Your task to perform on an android device: Search for the best rated 3d printer on Amazon. Image 0: 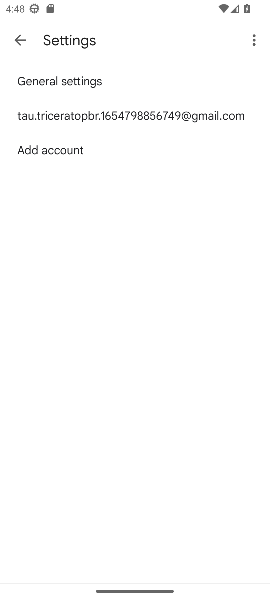
Step 0: press home button
Your task to perform on an android device: Search for the best rated 3d printer on Amazon. Image 1: 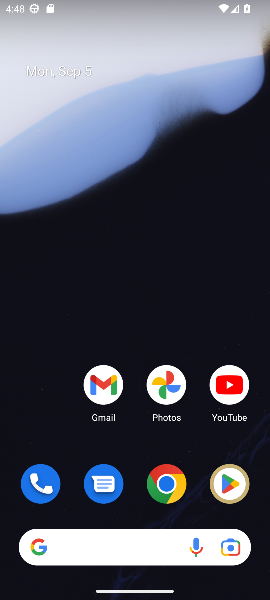
Step 1: click (172, 488)
Your task to perform on an android device: Search for the best rated 3d printer on Amazon. Image 2: 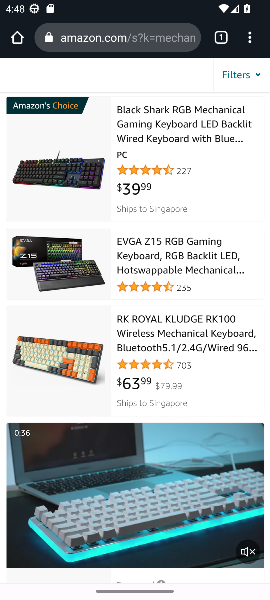
Step 2: drag from (167, 193) to (118, 596)
Your task to perform on an android device: Search for the best rated 3d printer on Amazon. Image 3: 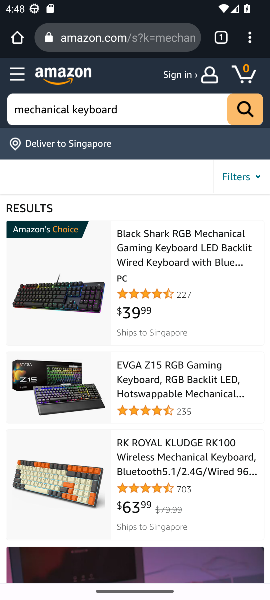
Step 3: drag from (173, 229) to (118, 506)
Your task to perform on an android device: Search for the best rated 3d printer on Amazon. Image 4: 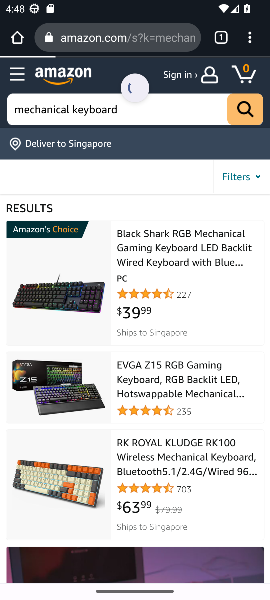
Step 4: click (172, 107)
Your task to perform on an android device: Search for the best rated 3d printer on Amazon. Image 5: 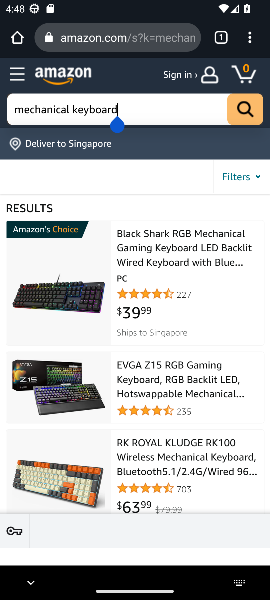
Step 5: click (172, 108)
Your task to perform on an android device: Search for the best rated 3d printer on Amazon. Image 6: 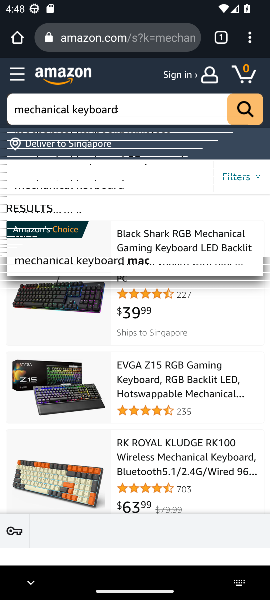
Step 6: click (218, 105)
Your task to perform on an android device: Search for the best rated 3d printer on Amazon. Image 7: 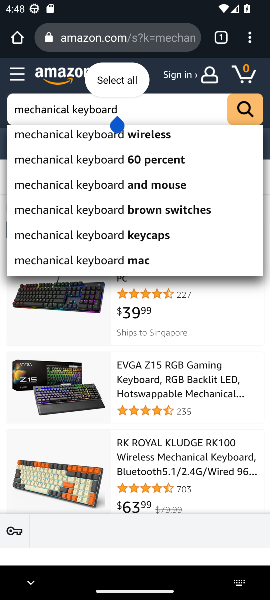
Step 7: click (176, 111)
Your task to perform on an android device: Search for the best rated 3d printer on Amazon. Image 8: 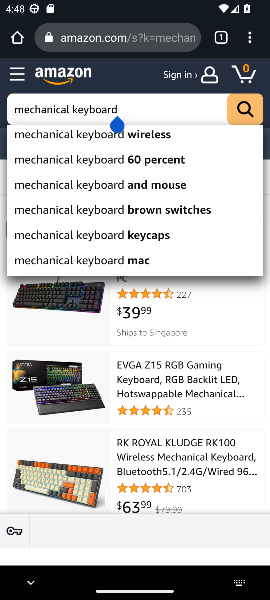
Step 8: click (197, 100)
Your task to perform on an android device: Search for the best rated 3d printer on Amazon. Image 9: 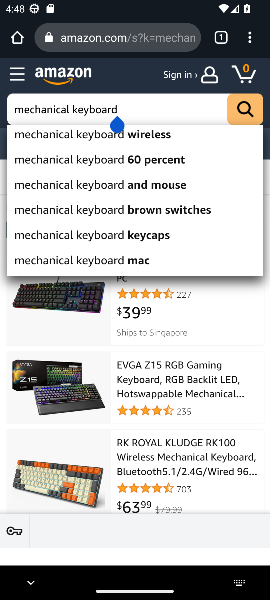
Step 9: click (222, 114)
Your task to perform on an android device: Search for the best rated 3d printer on Amazon. Image 10: 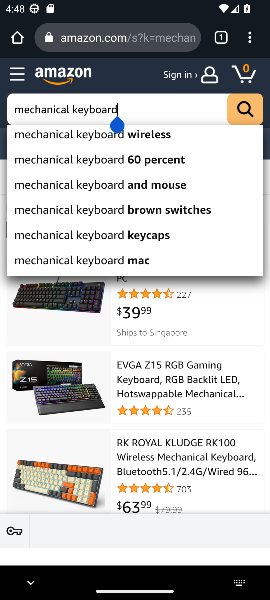
Step 10: click (191, 109)
Your task to perform on an android device: Search for the best rated 3d printer on Amazon. Image 11: 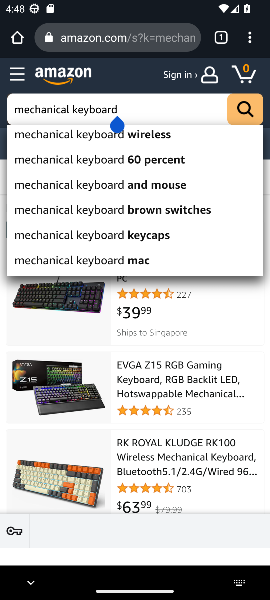
Step 11: click (89, 119)
Your task to perform on an android device: Search for the best rated 3d printer on Amazon. Image 12: 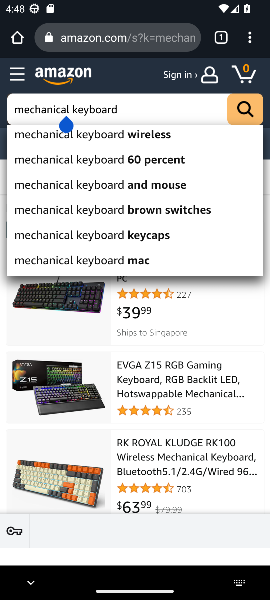
Step 12: click (141, 106)
Your task to perform on an android device: Search for the best rated 3d printer on Amazon. Image 13: 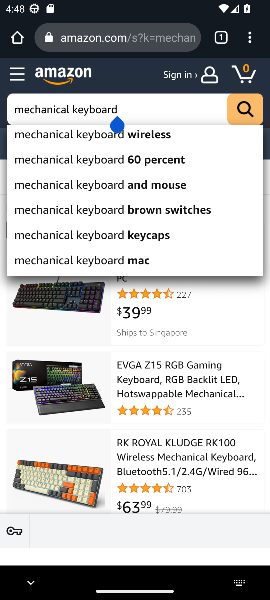
Step 13: click (58, 109)
Your task to perform on an android device: Search for the best rated 3d printer on Amazon. Image 14: 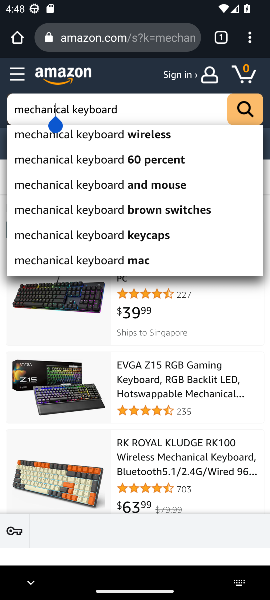
Step 14: click (58, 109)
Your task to perform on an android device: Search for the best rated 3d printer on Amazon. Image 15: 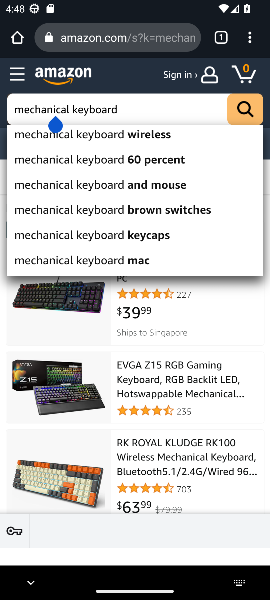
Step 15: click (205, 102)
Your task to perform on an android device: Search for the best rated 3d printer on Amazon. Image 16: 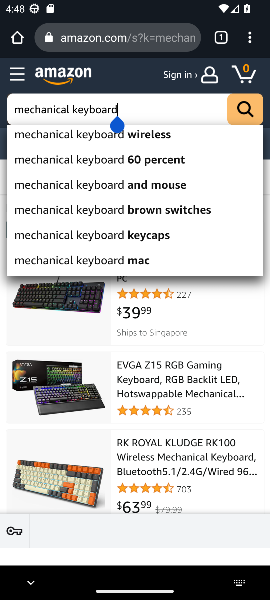
Step 16: click (204, 108)
Your task to perform on an android device: Search for the best rated 3d printer on Amazon. Image 17: 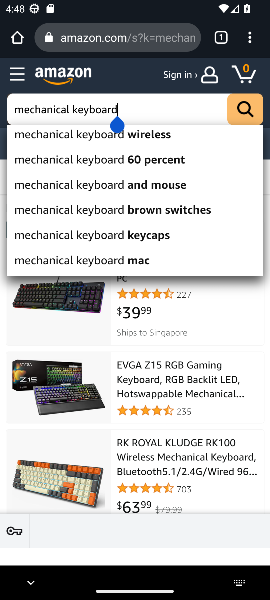
Step 17: click (209, 103)
Your task to perform on an android device: Search for the best rated 3d printer on Amazon. Image 18: 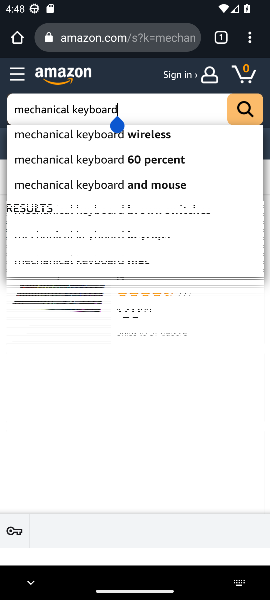
Step 18: click (209, 103)
Your task to perform on an android device: Search for the best rated 3d printer on Amazon. Image 19: 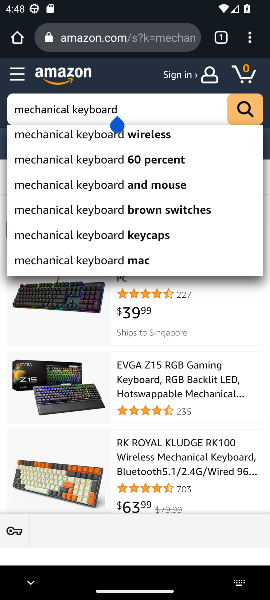
Step 19: press enter
Your task to perform on an android device: Search for the best rated 3d printer on Amazon. Image 20: 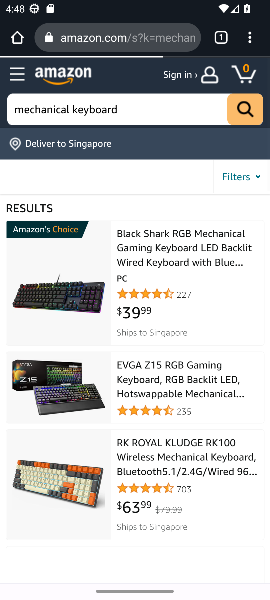
Step 20: click (210, 108)
Your task to perform on an android device: Search for the best rated 3d printer on Amazon. Image 21: 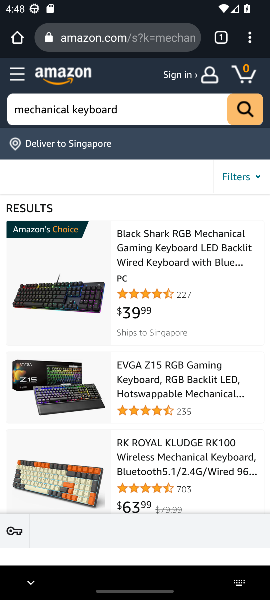
Step 21: click (210, 108)
Your task to perform on an android device: Search for the best rated 3d printer on Amazon. Image 22: 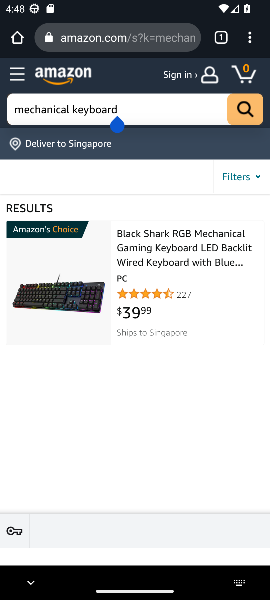
Step 22: click (204, 108)
Your task to perform on an android device: Search for the best rated 3d printer on Amazon. Image 23: 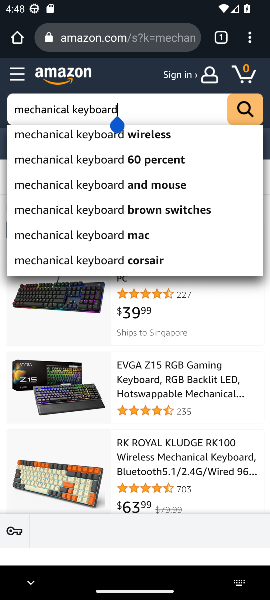
Step 23: click (204, 108)
Your task to perform on an android device: Search for the best rated 3d printer on Amazon. Image 24: 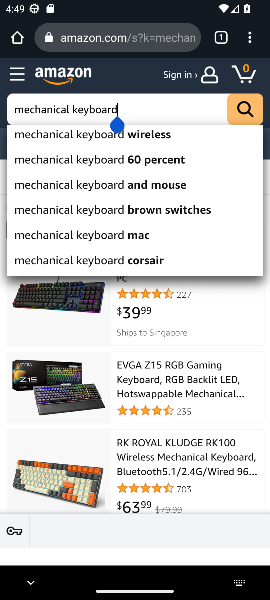
Step 24: click (207, 103)
Your task to perform on an android device: Search for the best rated 3d printer on Amazon. Image 25: 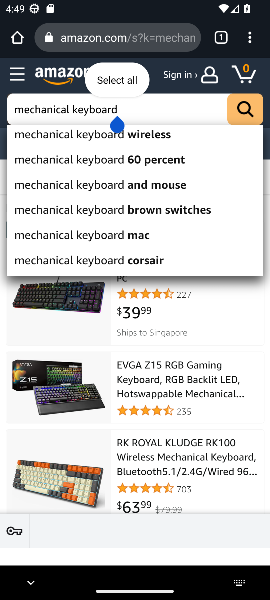
Step 25: click (116, 80)
Your task to perform on an android device: Search for the best rated 3d printer on Amazon. Image 26: 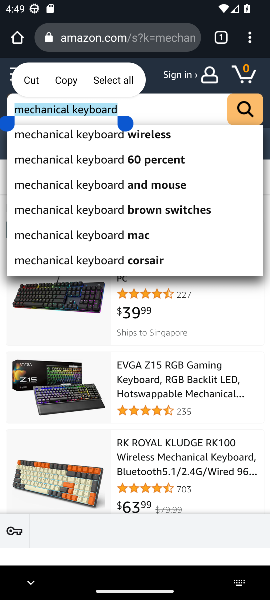
Step 26: click (167, 109)
Your task to perform on an android device: Search for the best rated 3d printer on Amazon. Image 27: 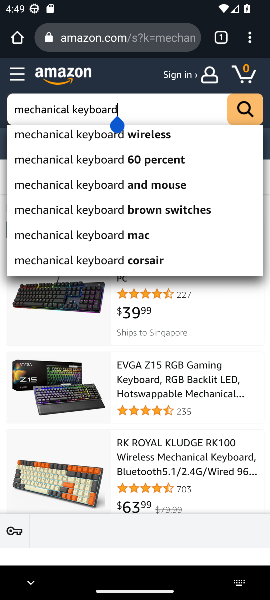
Step 27: press back button
Your task to perform on an android device: Search for the best rated 3d printer on Amazon. Image 28: 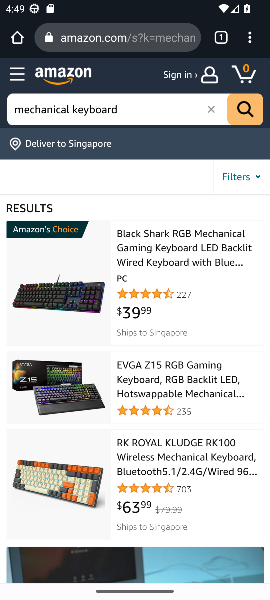
Step 28: click (209, 107)
Your task to perform on an android device: Search for the best rated 3d printer on Amazon. Image 29: 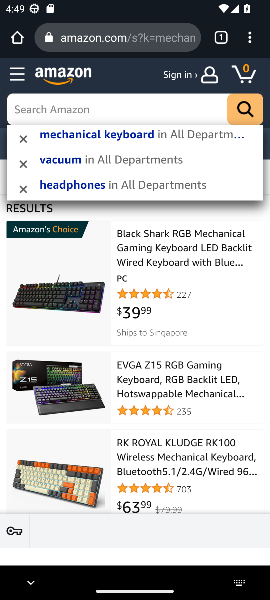
Step 29: type "3d printer"
Your task to perform on an android device: Search for the best rated 3d printer on Amazon. Image 30: 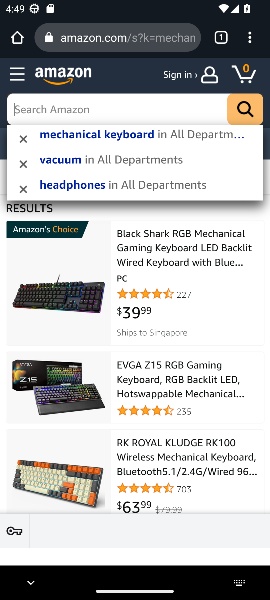
Step 30: press enter
Your task to perform on an android device: Search for the best rated 3d printer on Amazon. Image 31: 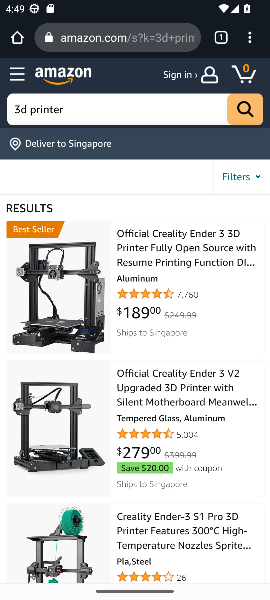
Step 31: task complete